Your task to perform on an android device: change notifications settings Image 0: 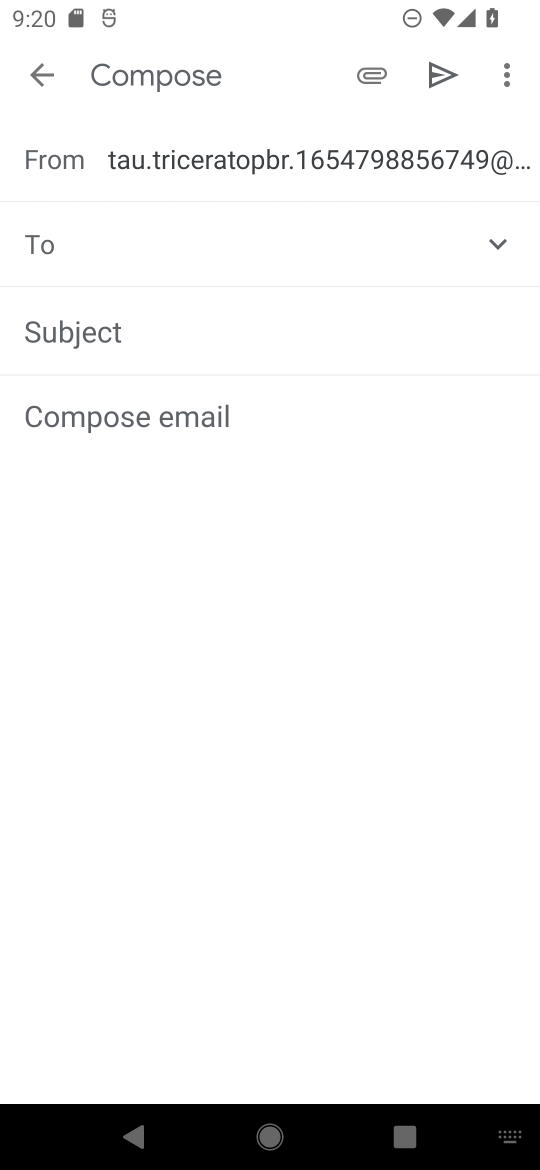
Step 0: press home button
Your task to perform on an android device: change notifications settings Image 1: 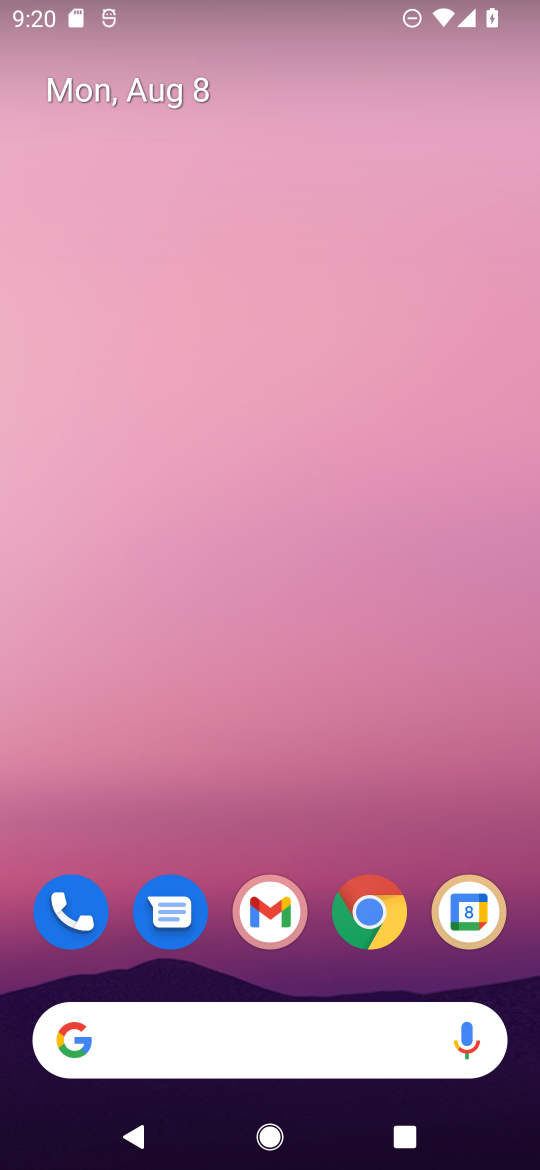
Step 1: drag from (483, 916) to (115, 125)
Your task to perform on an android device: change notifications settings Image 2: 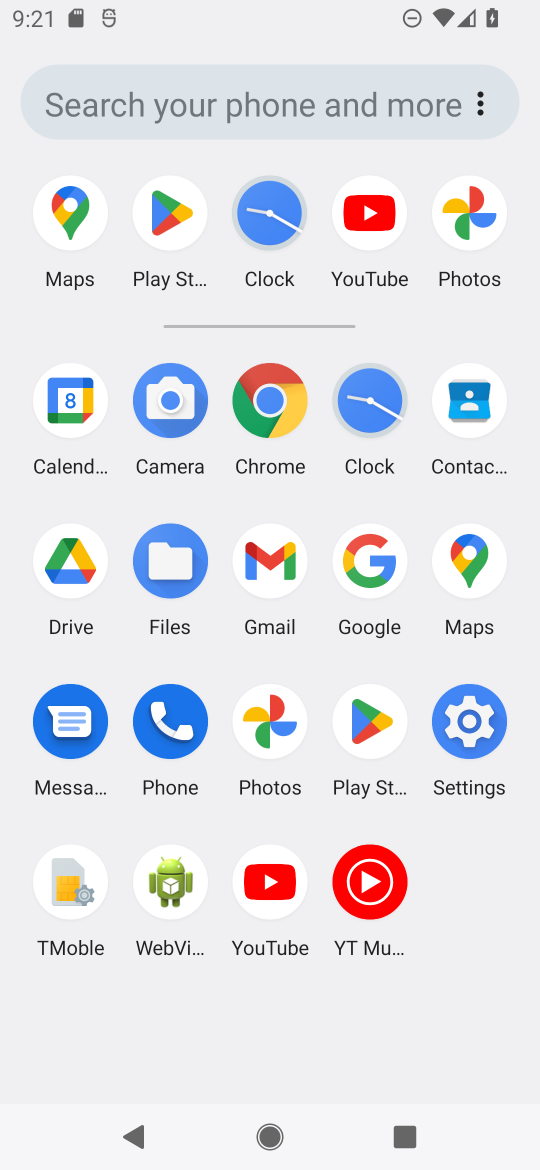
Step 2: click (514, 739)
Your task to perform on an android device: change notifications settings Image 3: 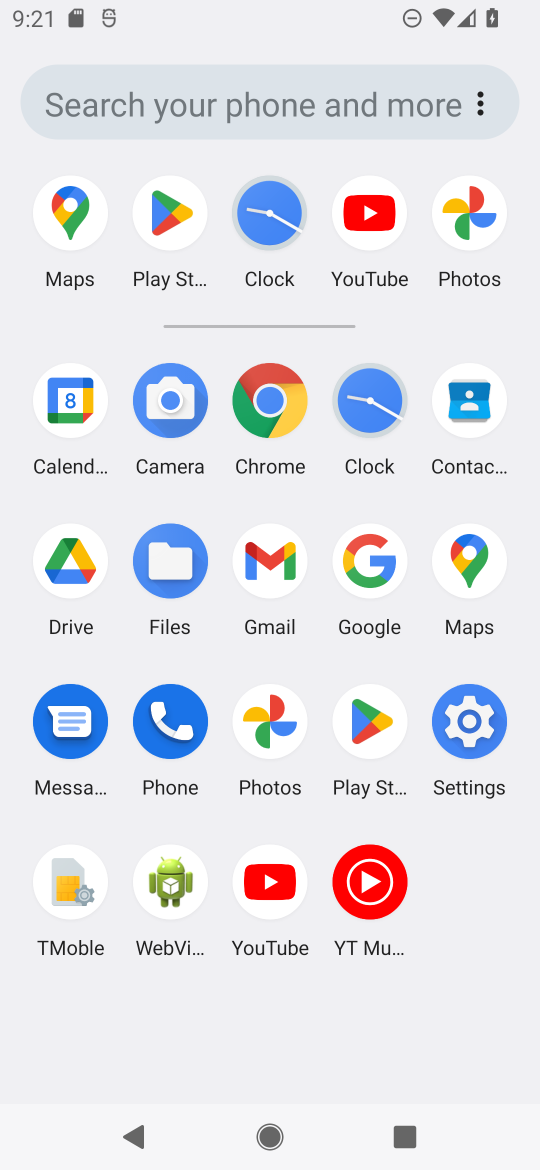
Step 3: click (497, 732)
Your task to perform on an android device: change notifications settings Image 4: 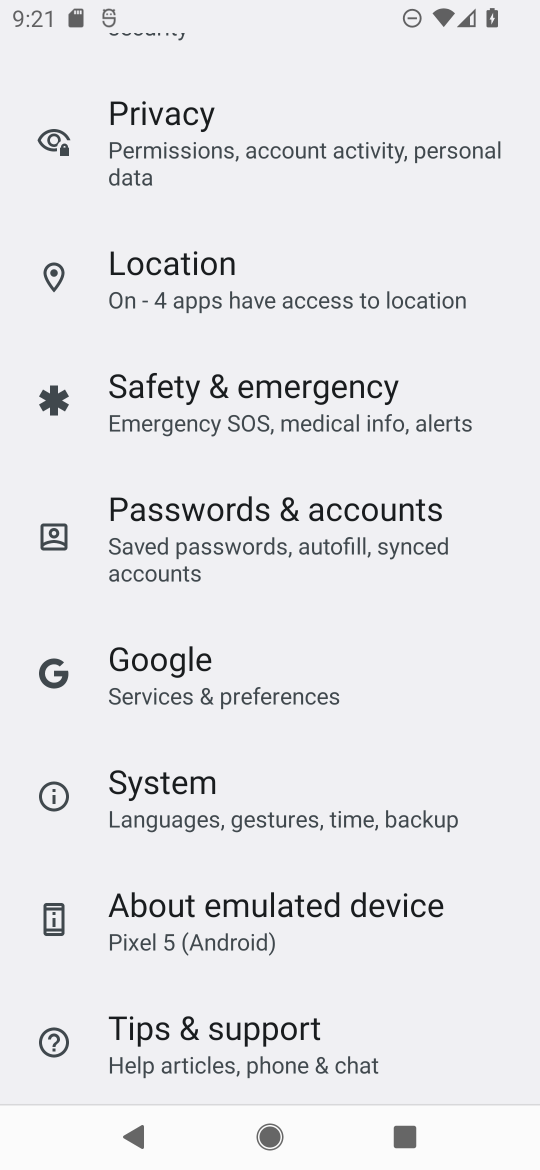
Step 4: drag from (248, 118) to (268, 1165)
Your task to perform on an android device: change notifications settings Image 5: 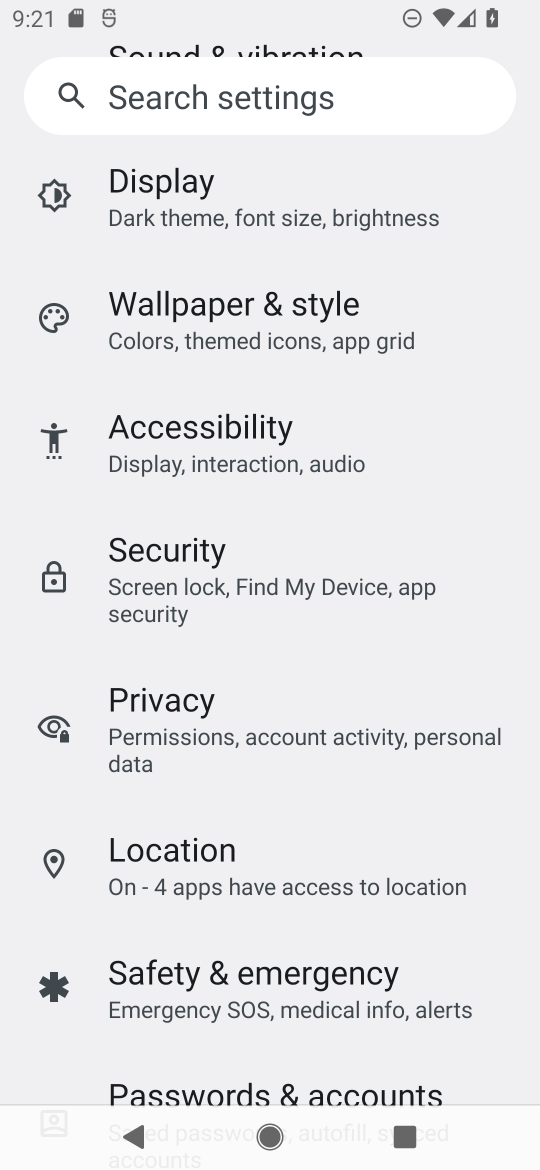
Step 5: drag from (202, 332) to (311, 1147)
Your task to perform on an android device: change notifications settings Image 6: 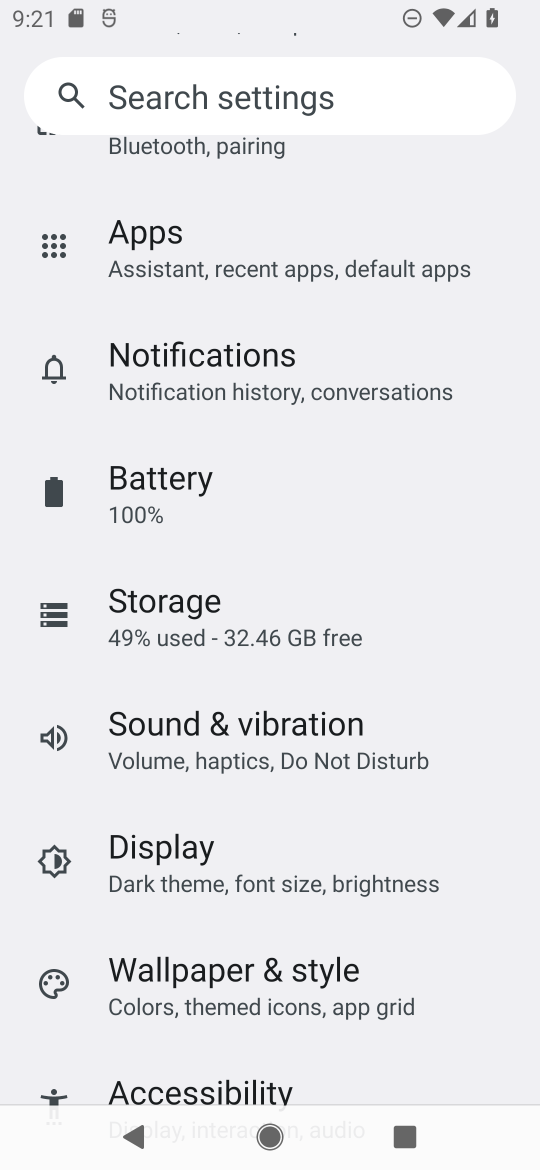
Step 6: click (216, 375)
Your task to perform on an android device: change notifications settings Image 7: 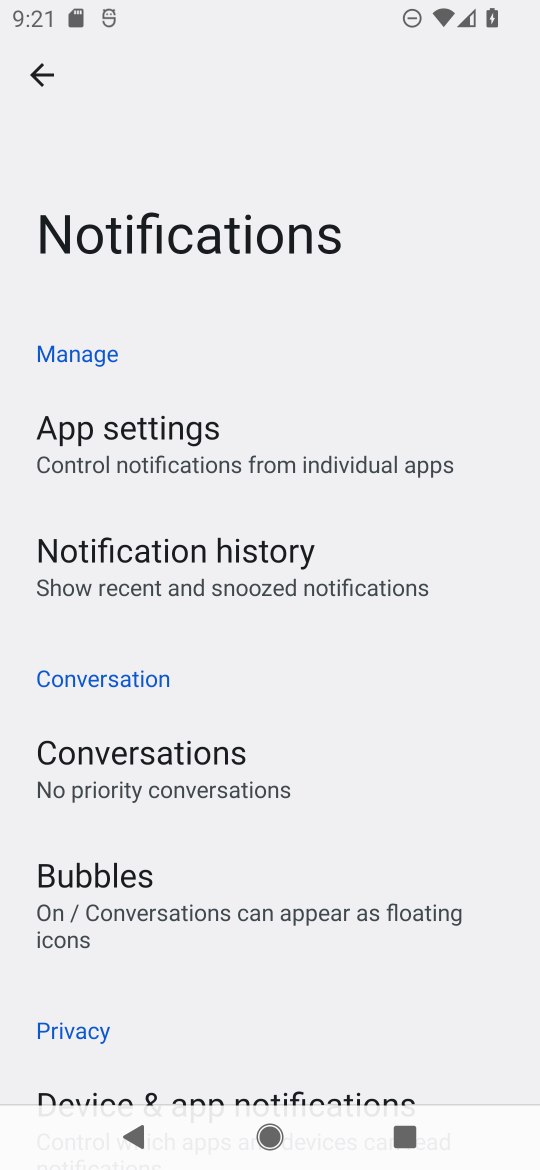
Step 7: task complete